Your task to perform on an android device: Play the last video I watched on Youtube Image 0: 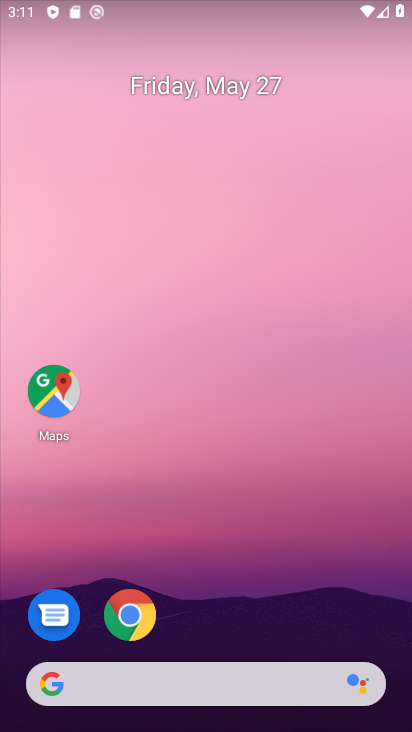
Step 0: drag from (253, 667) to (178, 14)
Your task to perform on an android device: Play the last video I watched on Youtube Image 1: 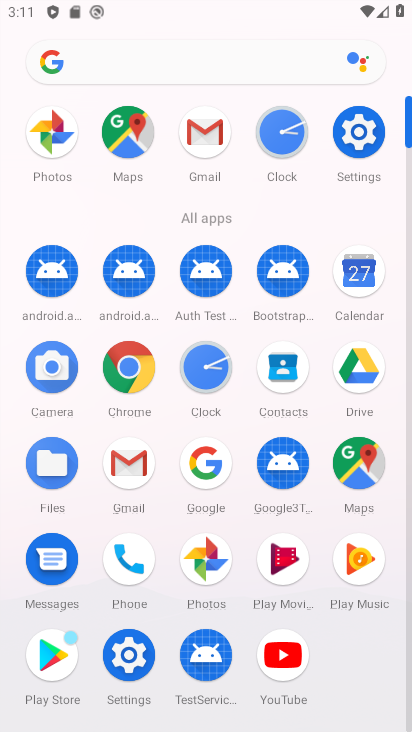
Step 1: click (286, 657)
Your task to perform on an android device: Play the last video I watched on Youtube Image 2: 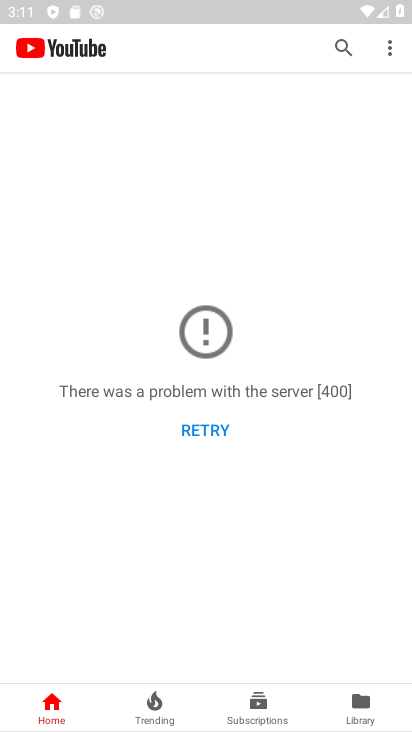
Step 2: click (346, 702)
Your task to perform on an android device: Play the last video I watched on Youtube Image 3: 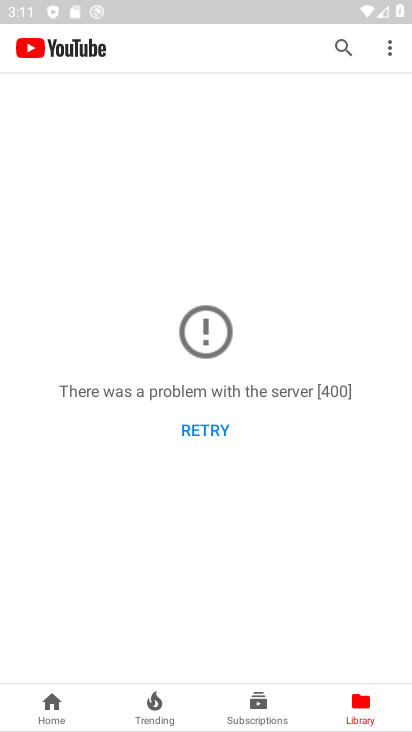
Step 3: click (202, 442)
Your task to perform on an android device: Play the last video I watched on Youtube Image 4: 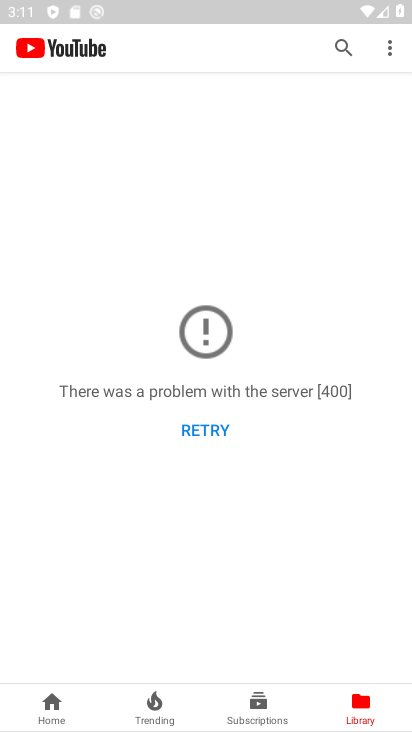
Step 4: click (202, 442)
Your task to perform on an android device: Play the last video I watched on Youtube Image 5: 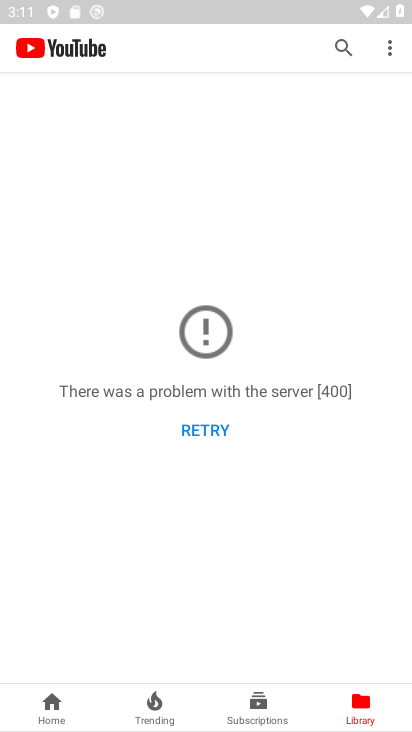
Step 5: task complete